Your task to perform on an android device: see sites visited before in the chrome app Image 0: 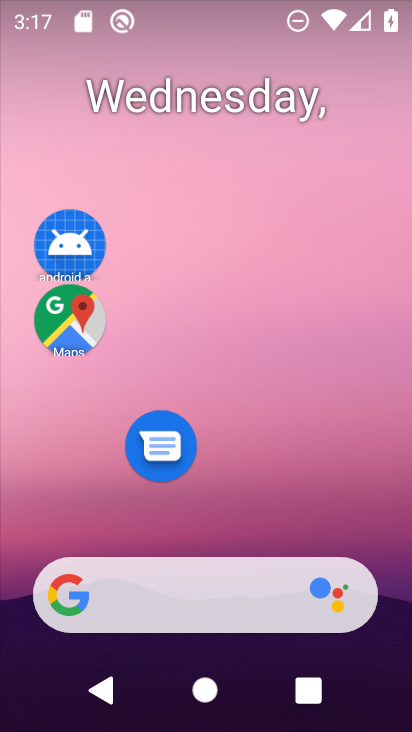
Step 0: drag from (260, 504) to (197, 6)
Your task to perform on an android device: see sites visited before in the chrome app Image 1: 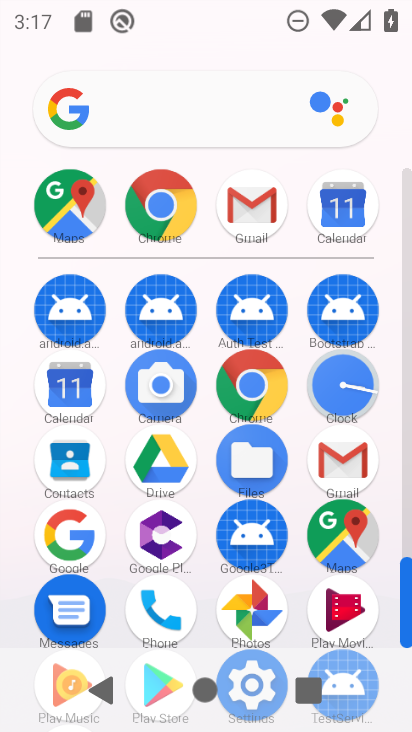
Step 1: click (184, 172)
Your task to perform on an android device: see sites visited before in the chrome app Image 2: 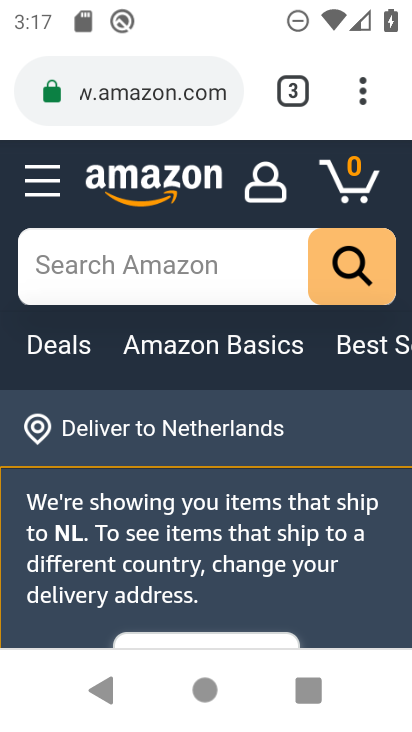
Step 2: click (355, 99)
Your task to perform on an android device: see sites visited before in the chrome app Image 3: 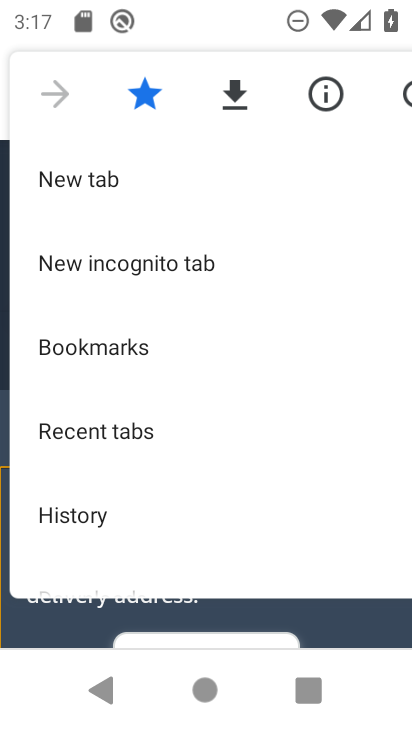
Step 3: click (242, 434)
Your task to perform on an android device: see sites visited before in the chrome app Image 4: 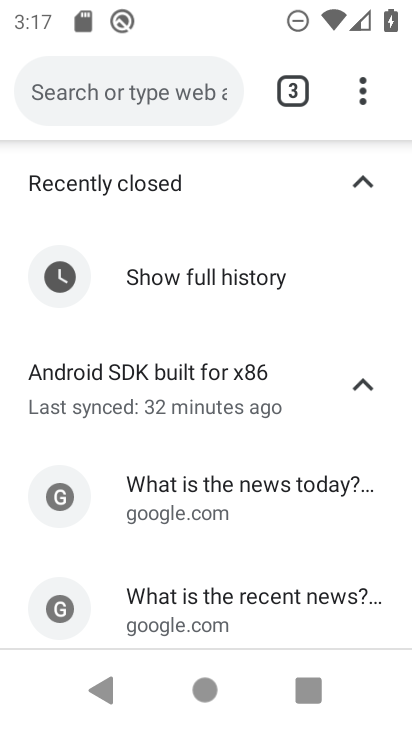
Step 4: task complete